Your task to perform on an android device: Open Reddit.com Image 0: 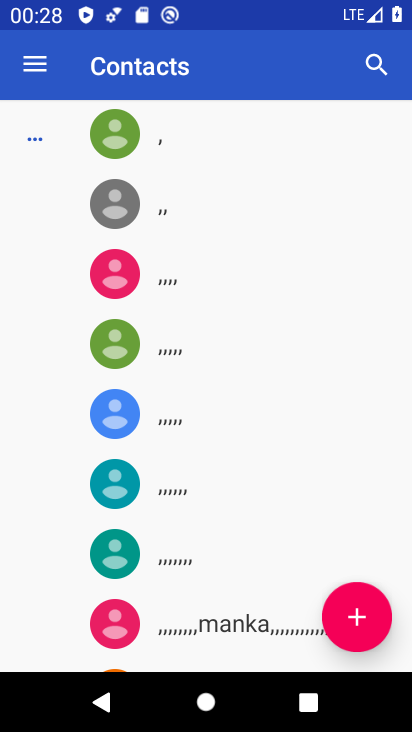
Step 0: press home button
Your task to perform on an android device: Open Reddit.com Image 1: 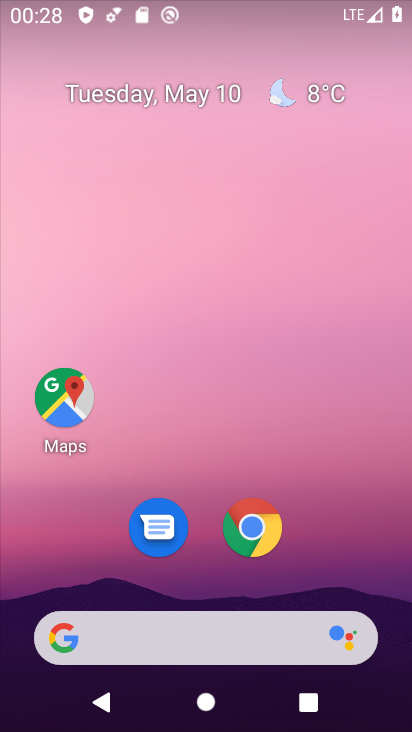
Step 1: click (259, 523)
Your task to perform on an android device: Open Reddit.com Image 2: 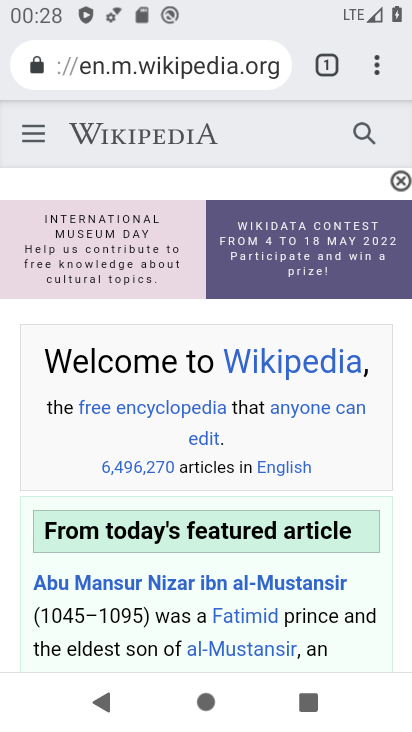
Step 2: click (334, 66)
Your task to perform on an android device: Open Reddit.com Image 3: 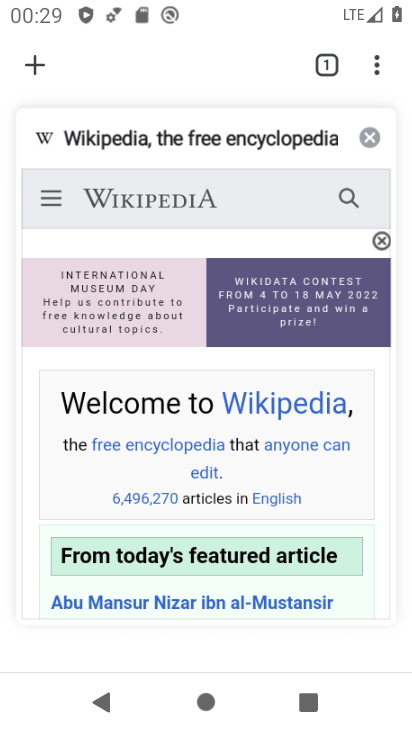
Step 3: click (35, 62)
Your task to perform on an android device: Open Reddit.com Image 4: 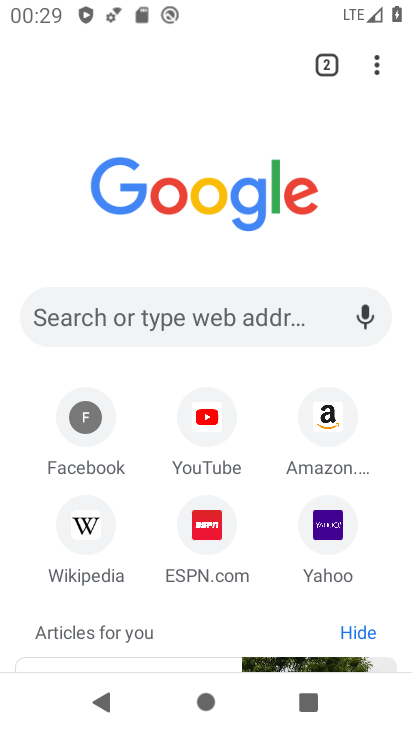
Step 4: click (174, 318)
Your task to perform on an android device: Open Reddit.com Image 5: 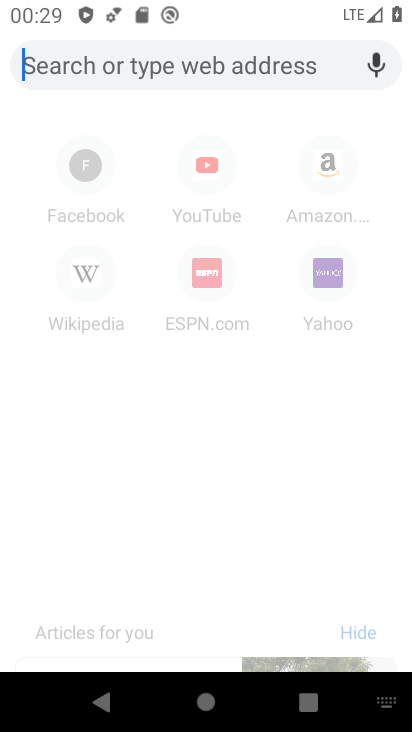
Step 5: type "reddit.com"
Your task to perform on an android device: Open Reddit.com Image 6: 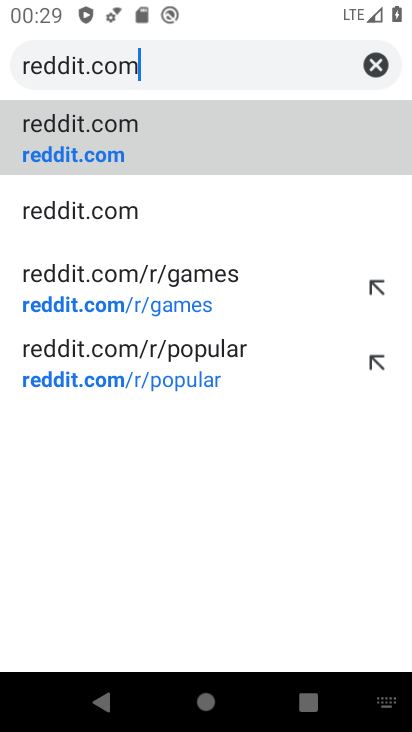
Step 6: click (101, 152)
Your task to perform on an android device: Open Reddit.com Image 7: 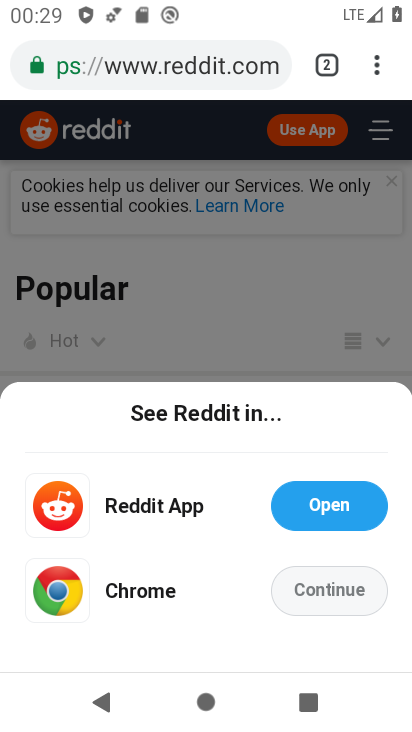
Step 7: click (314, 595)
Your task to perform on an android device: Open Reddit.com Image 8: 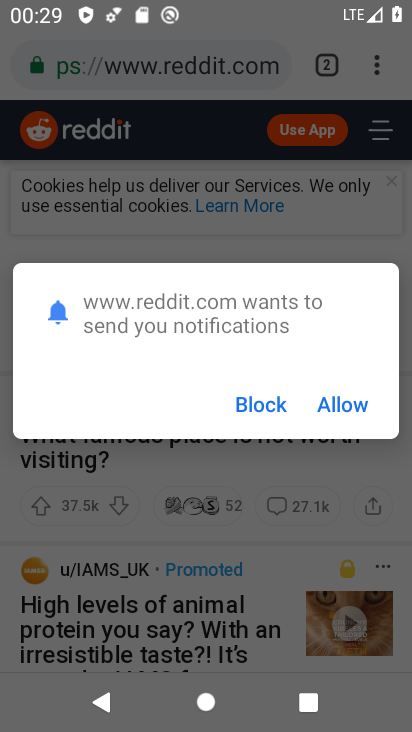
Step 8: click (266, 394)
Your task to perform on an android device: Open Reddit.com Image 9: 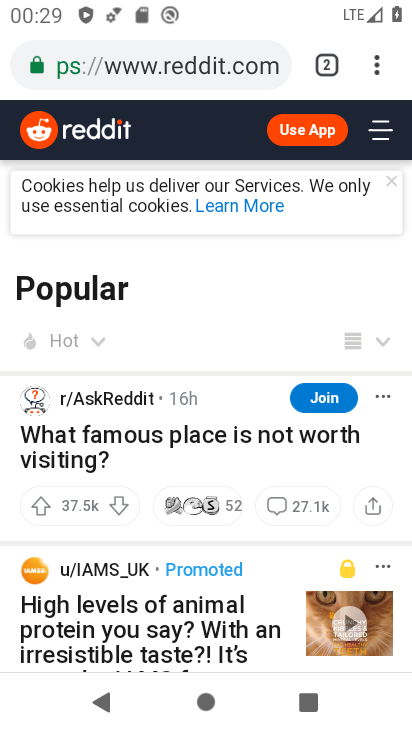
Step 9: task complete